Your task to perform on an android device: toggle location history Image 0: 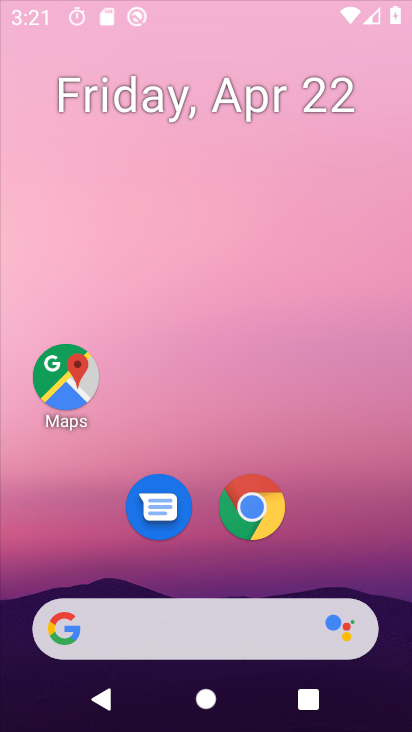
Step 0: click (381, 118)
Your task to perform on an android device: toggle location history Image 1: 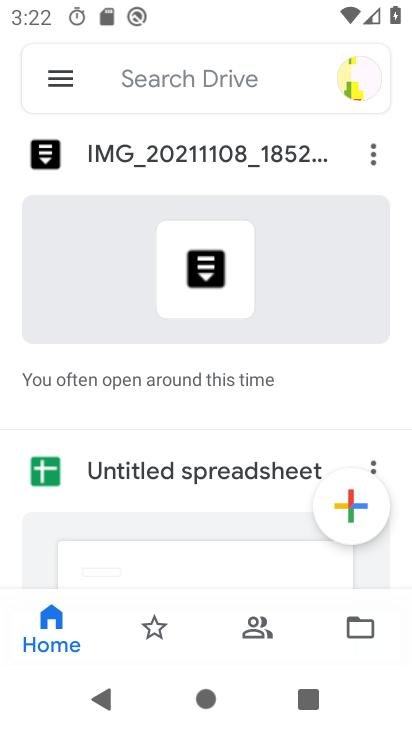
Step 1: press home button
Your task to perform on an android device: toggle location history Image 2: 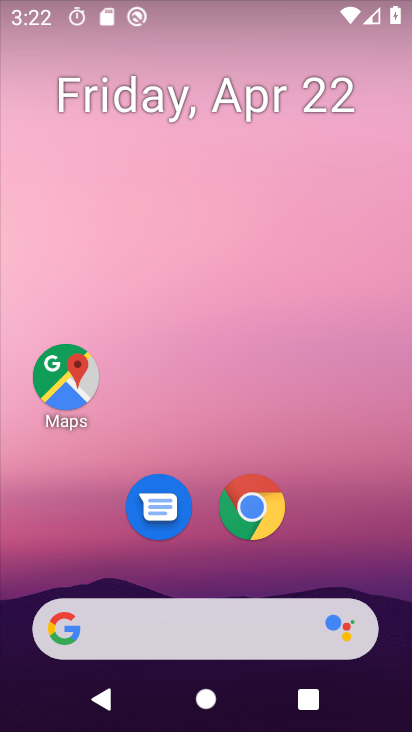
Step 2: drag from (355, 514) to (320, 109)
Your task to perform on an android device: toggle location history Image 3: 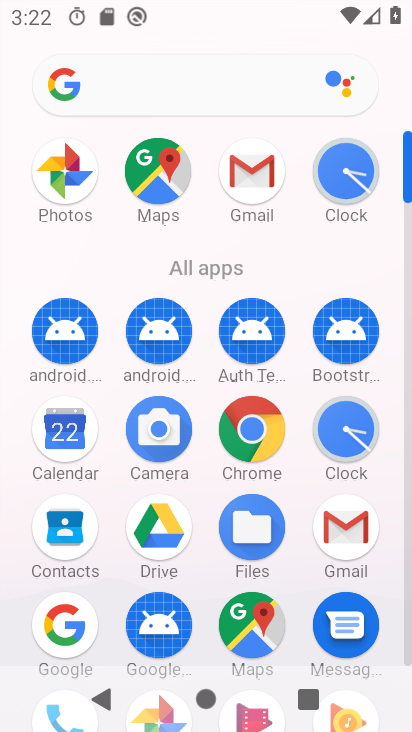
Step 3: drag from (399, 505) to (383, 257)
Your task to perform on an android device: toggle location history Image 4: 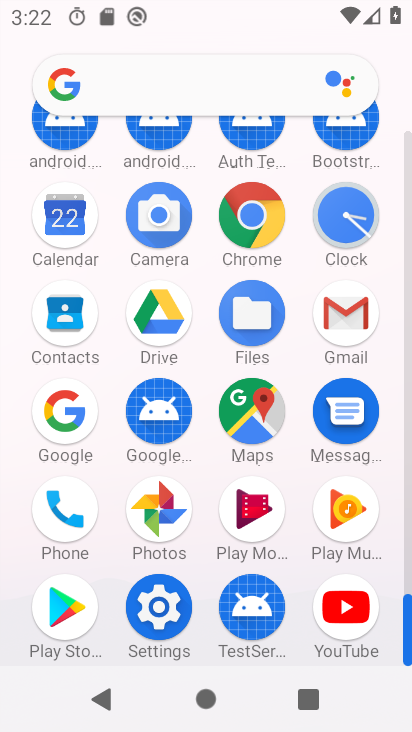
Step 4: click (175, 599)
Your task to perform on an android device: toggle location history Image 5: 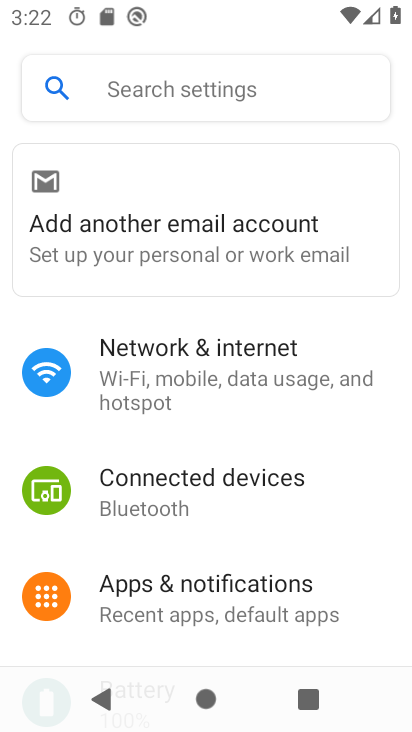
Step 5: drag from (178, 528) to (225, 204)
Your task to perform on an android device: toggle location history Image 6: 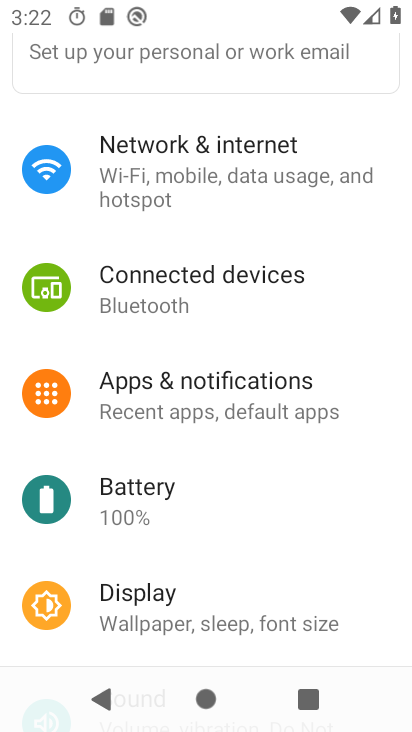
Step 6: drag from (202, 539) to (241, 250)
Your task to perform on an android device: toggle location history Image 7: 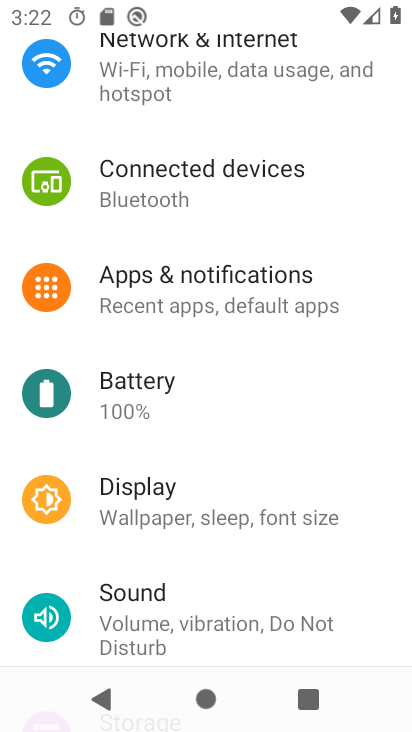
Step 7: drag from (275, 456) to (268, 163)
Your task to perform on an android device: toggle location history Image 8: 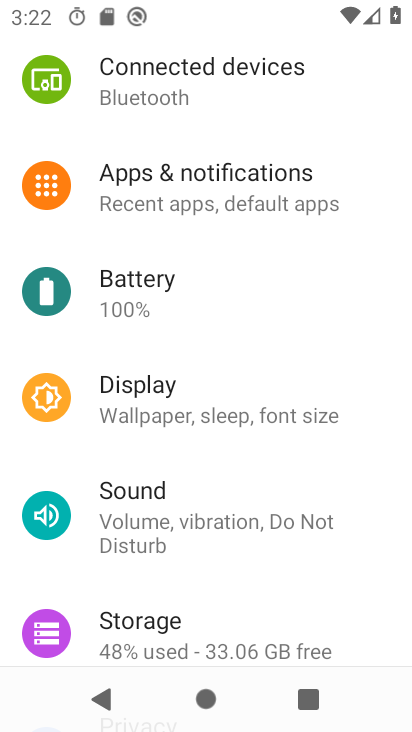
Step 8: drag from (235, 589) to (262, 197)
Your task to perform on an android device: toggle location history Image 9: 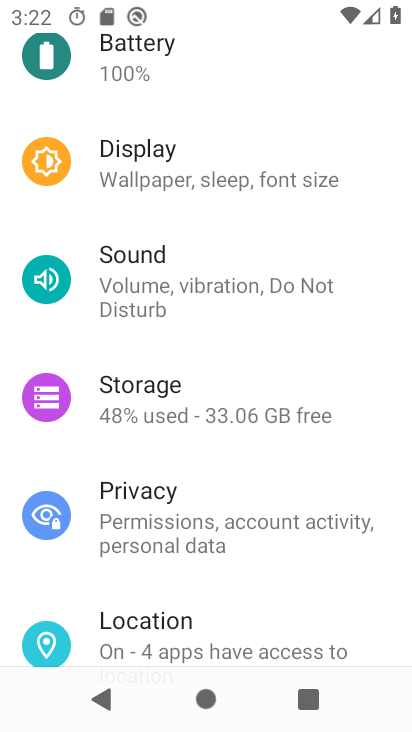
Step 9: drag from (261, 428) to (247, 181)
Your task to perform on an android device: toggle location history Image 10: 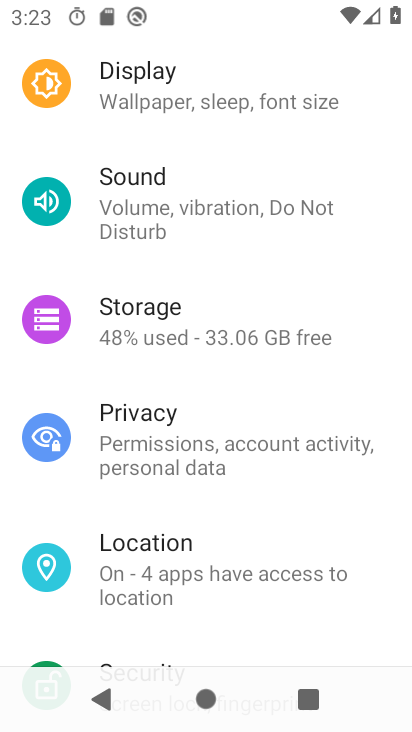
Step 10: click (172, 573)
Your task to perform on an android device: toggle location history Image 11: 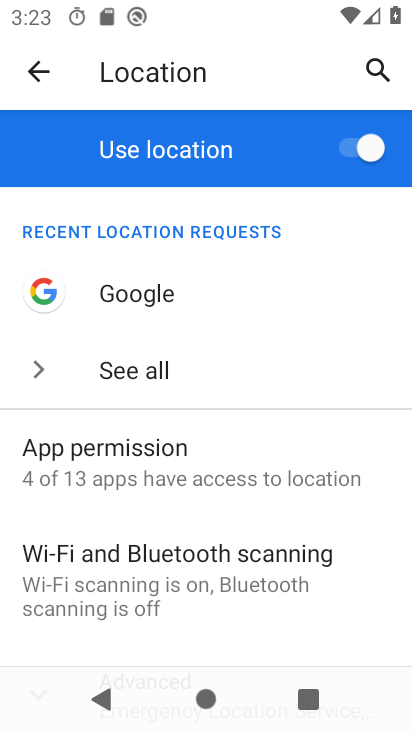
Step 11: drag from (224, 500) to (275, 241)
Your task to perform on an android device: toggle location history Image 12: 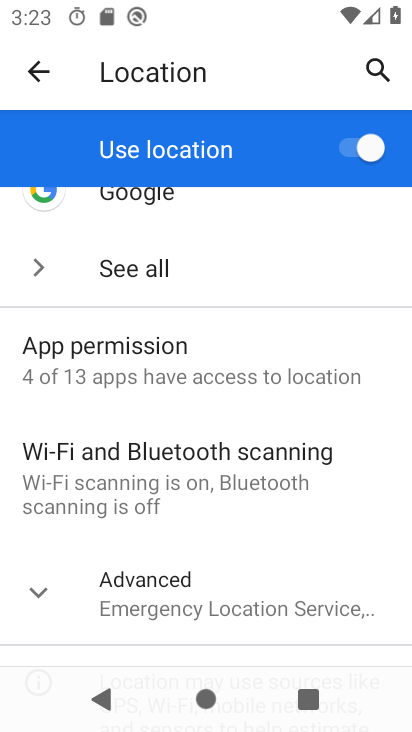
Step 12: click (350, 168)
Your task to perform on an android device: toggle location history Image 13: 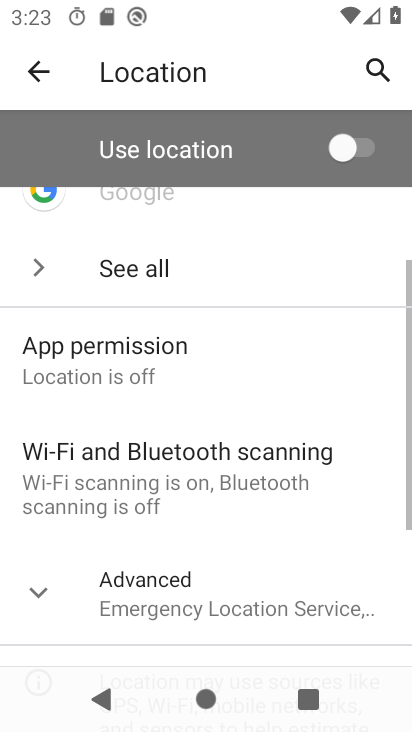
Step 13: task complete